Your task to perform on an android device: make emails show in primary in the gmail app Image 0: 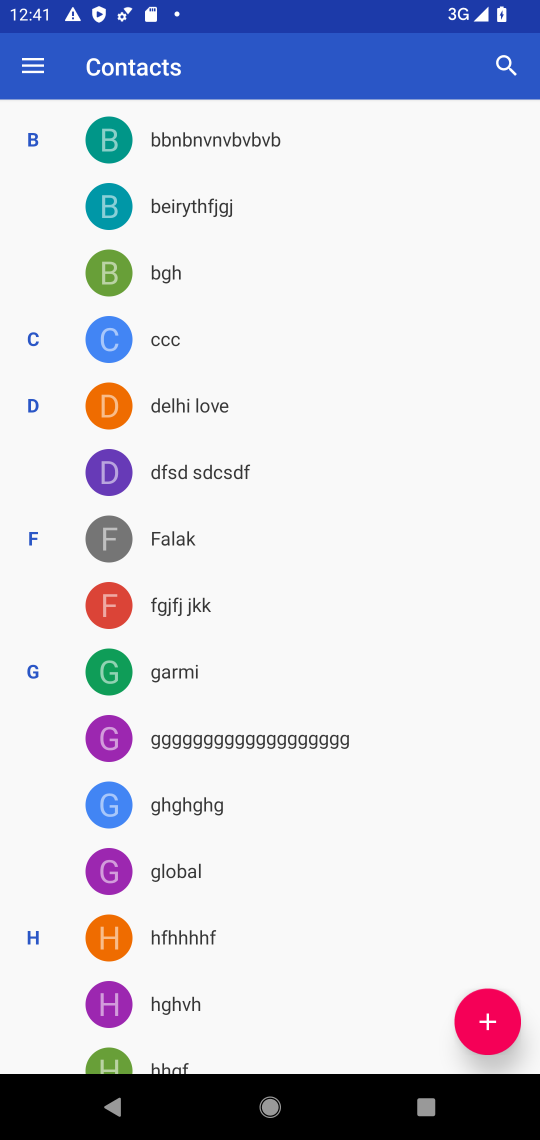
Step 0: press home button
Your task to perform on an android device: make emails show in primary in the gmail app Image 1: 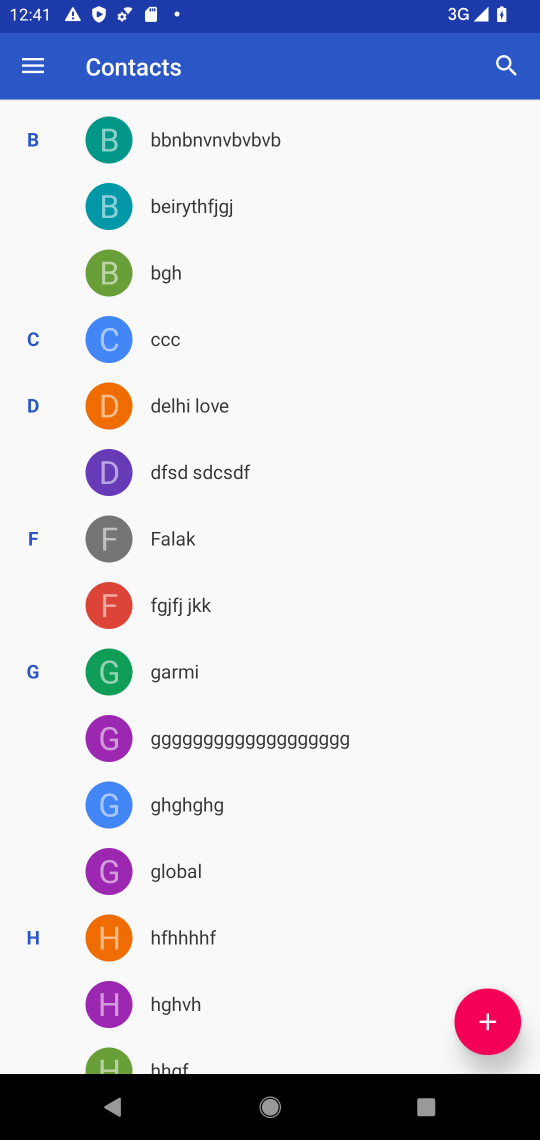
Step 1: drag from (212, 986) to (305, 224)
Your task to perform on an android device: make emails show in primary in the gmail app Image 2: 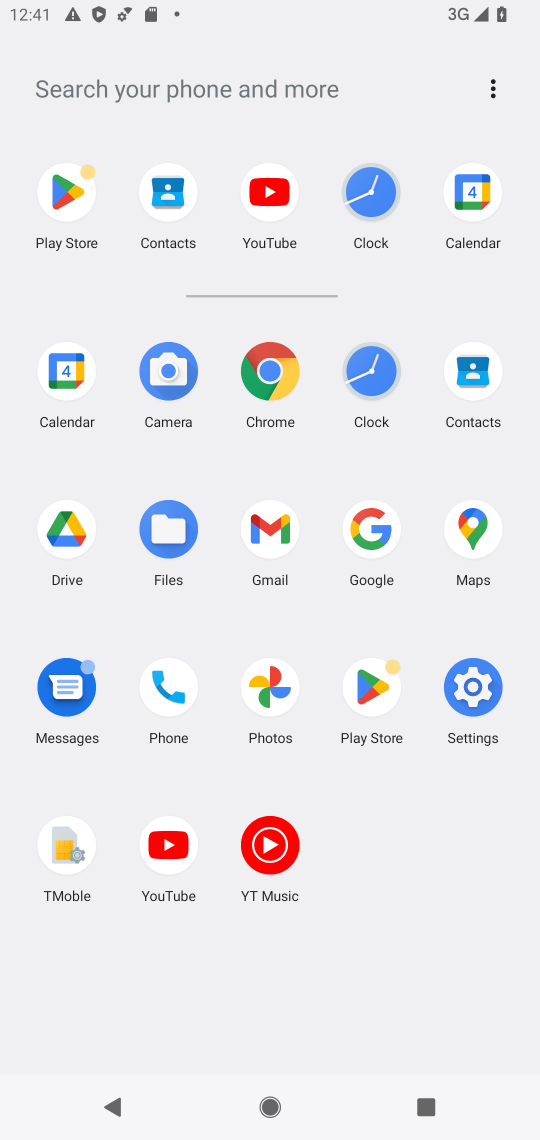
Step 2: click (273, 546)
Your task to perform on an android device: make emails show in primary in the gmail app Image 3: 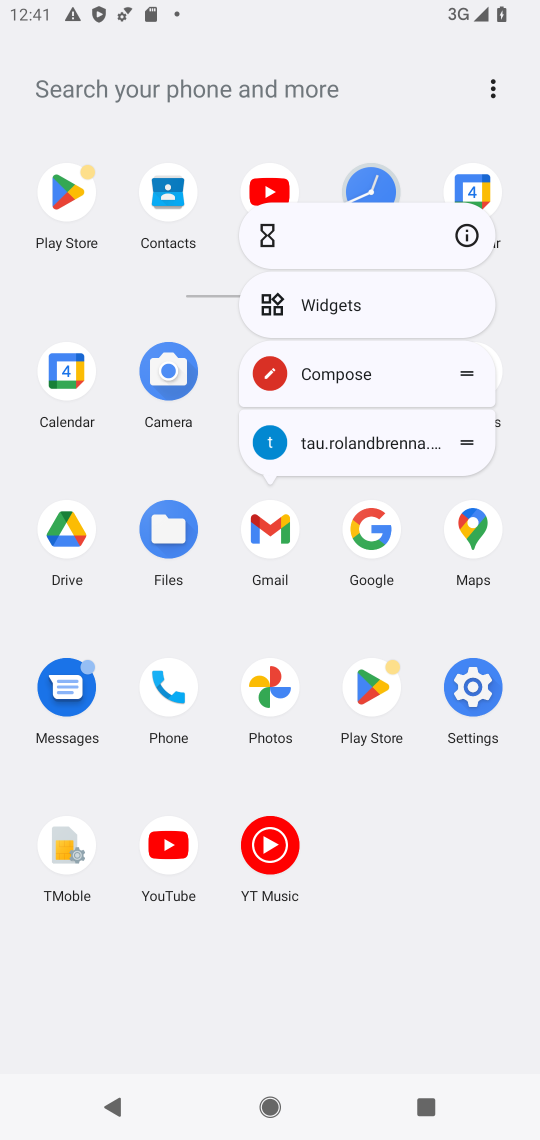
Step 3: click (485, 243)
Your task to perform on an android device: make emails show in primary in the gmail app Image 4: 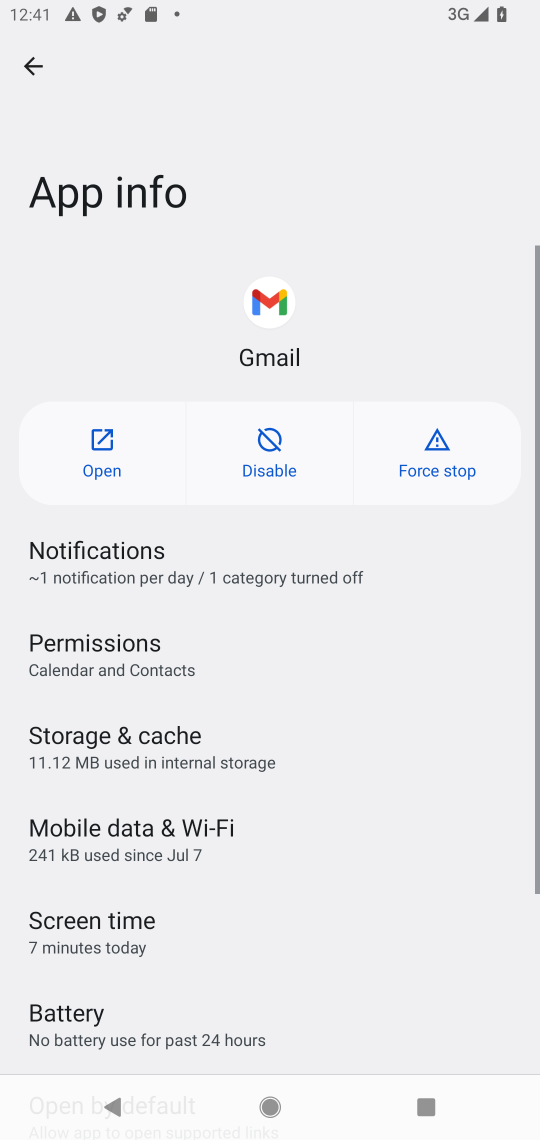
Step 4: click (123, 461)
Your task to perform on an android device: make emails show in primary in the gmail app Image 5: 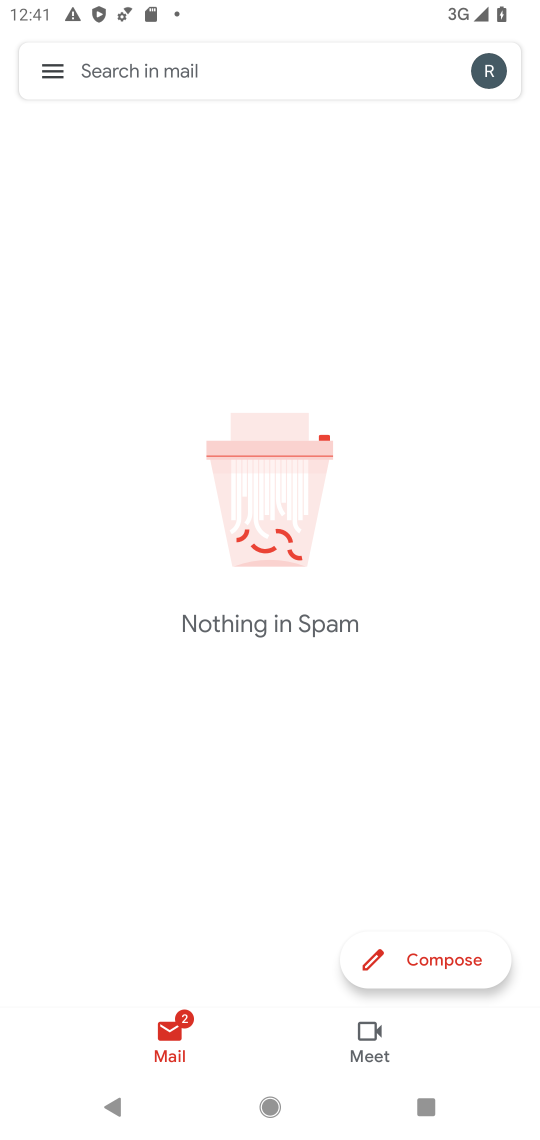
Step 5: click (61, 67)
Your task to perform on an android device: make emails show in primary in the gmail app Image 6: 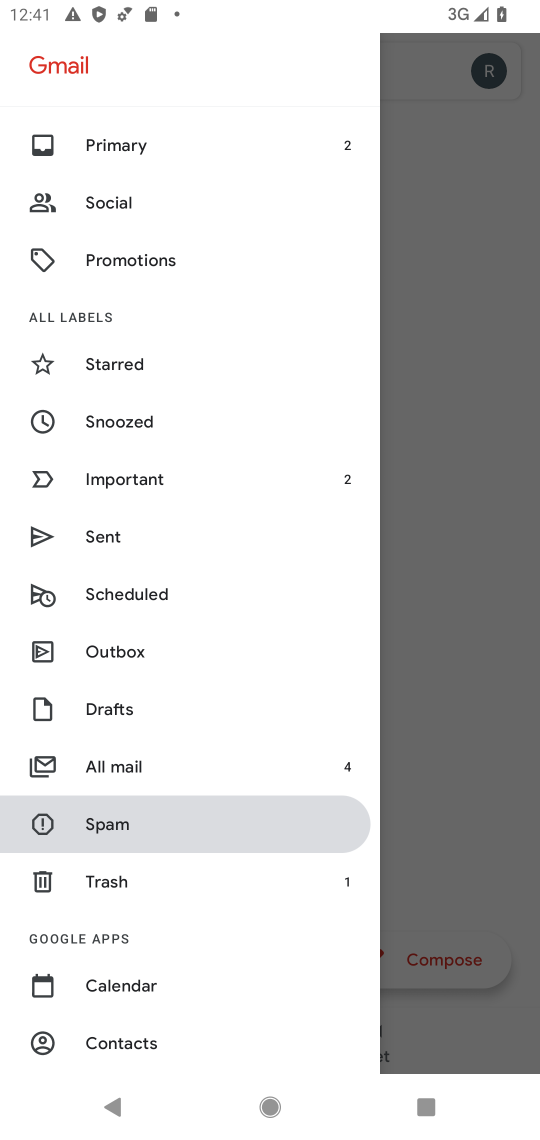
Step 6: click (134, 160)
Your task to perform on an android device: make emails show in primary in the gmail app Image 7: 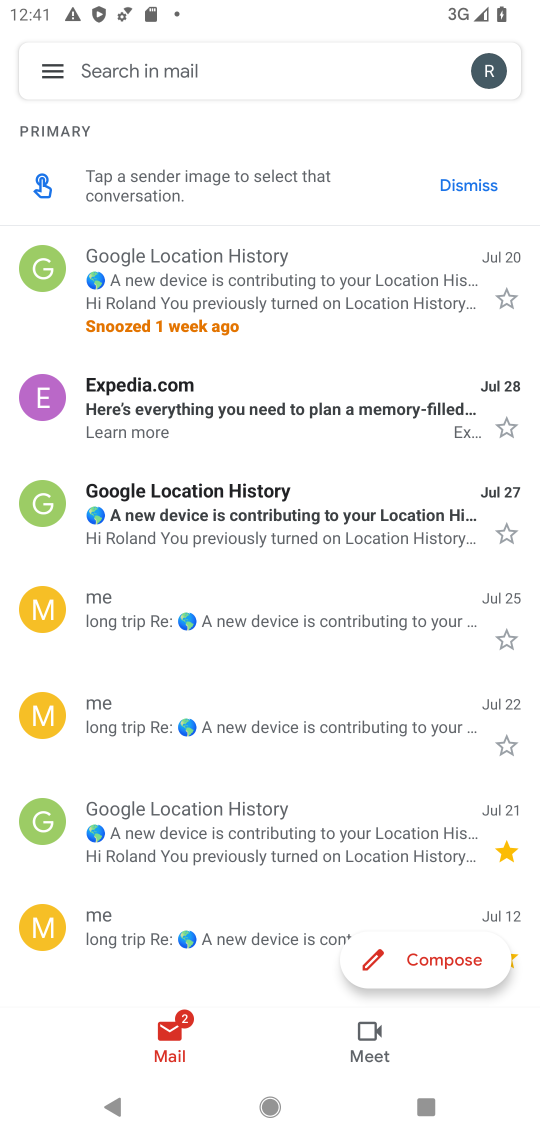
Step 7: click (63, 62)
Your task to perform on an android device: make emails show in primary in the gmail app Image 8: 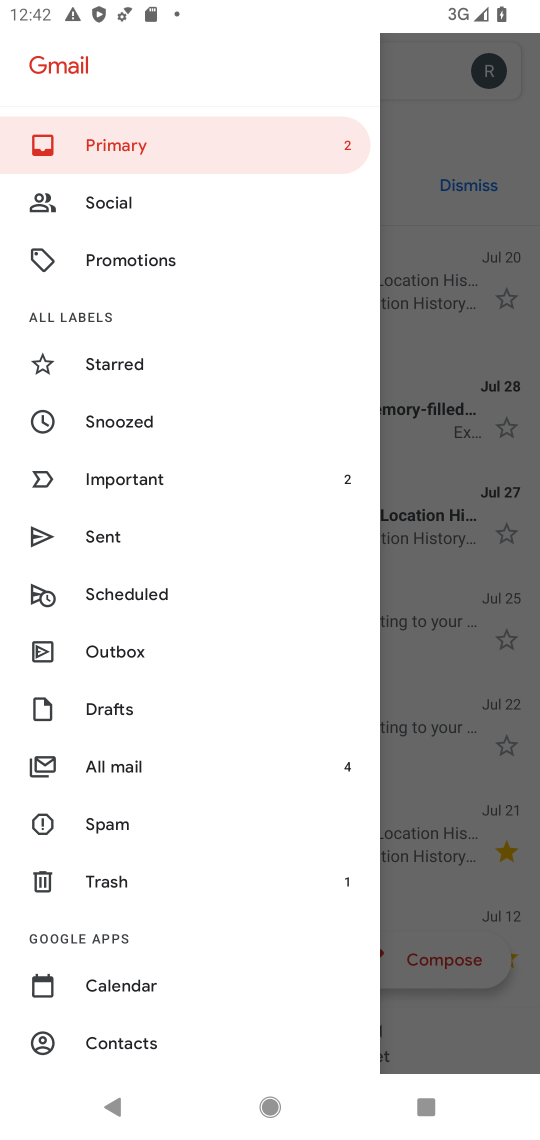
Step 8: drag from (240, 868) to (257, 155)
Your task to perform on an android device: make emails show in primary in the gmail app Image 9: 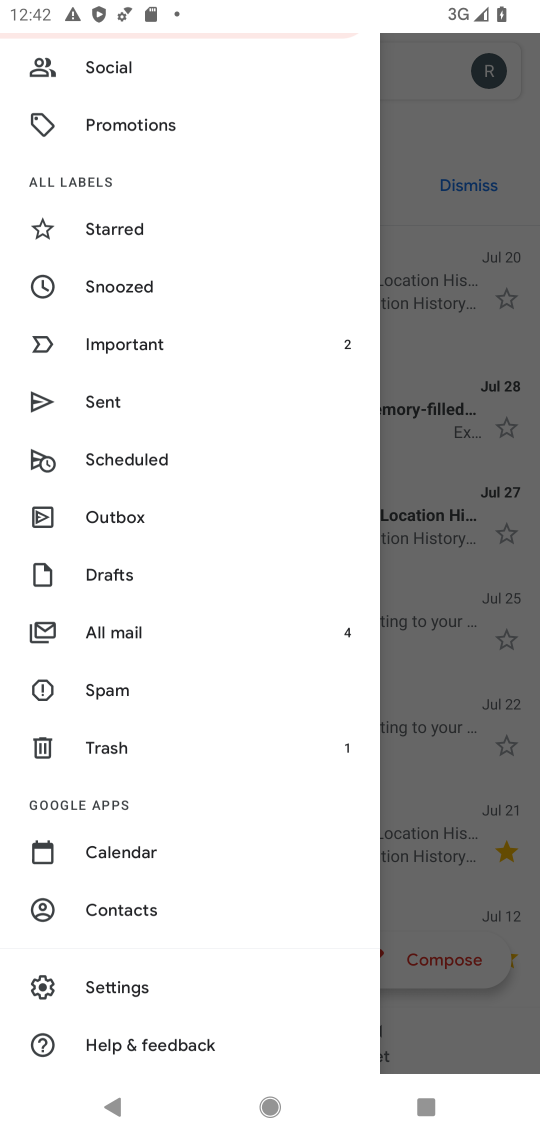
Step 9: drag from (151, 452) to (359, 1126)
Your task to perform on an android device: make emails show in primary in the gmail app Image 10: 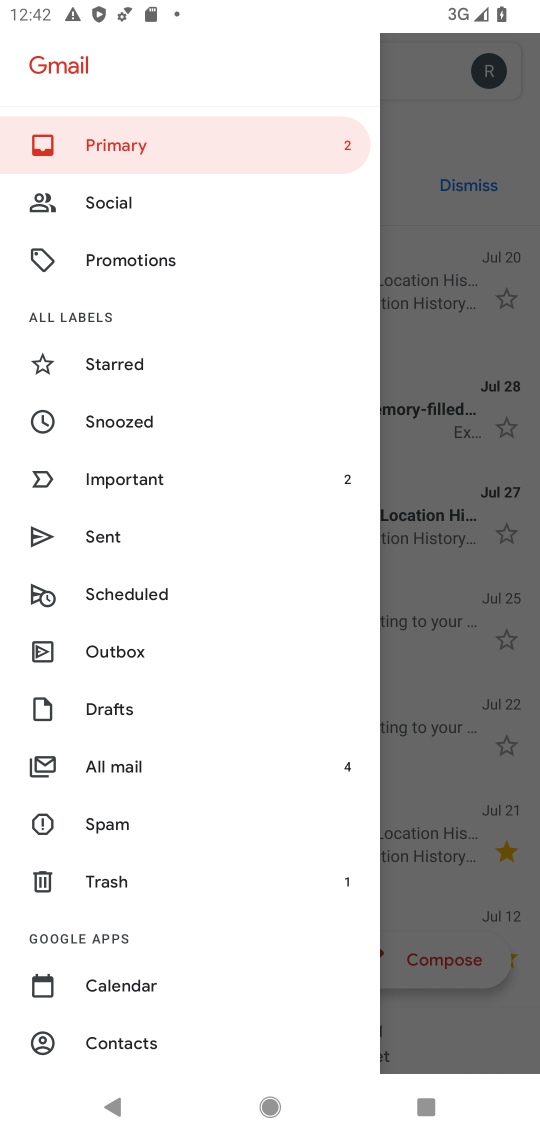
Step 10: drag from (205, 318) to (288, 1099)
Your task to perform on an android device: make emails show in primary in the gmail app Image 11: 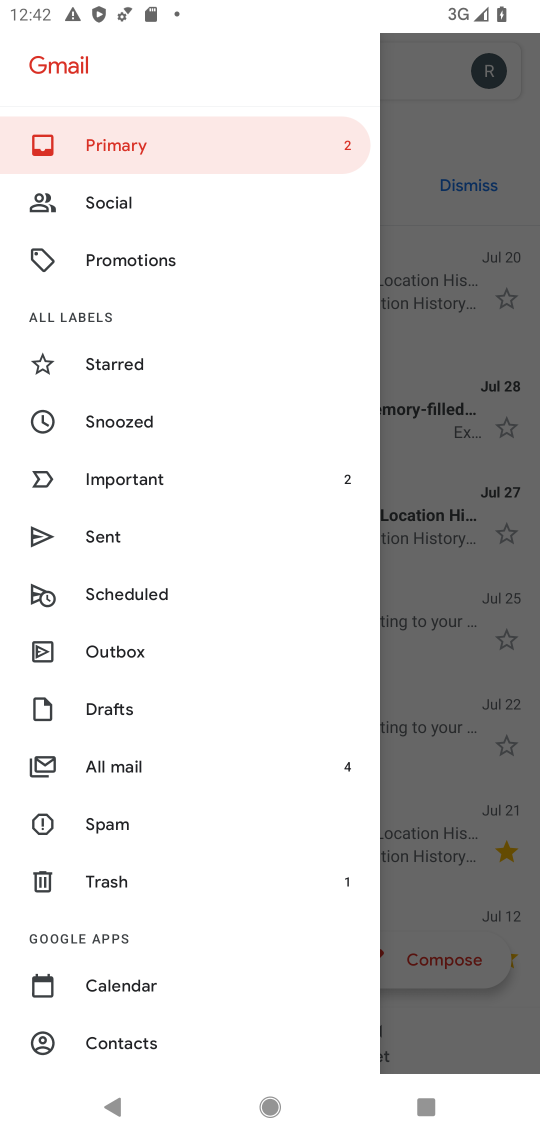
Step 11: click (178, 159)
Your task to perform on an android device: make emails show in primary in the gmail app Image 12: 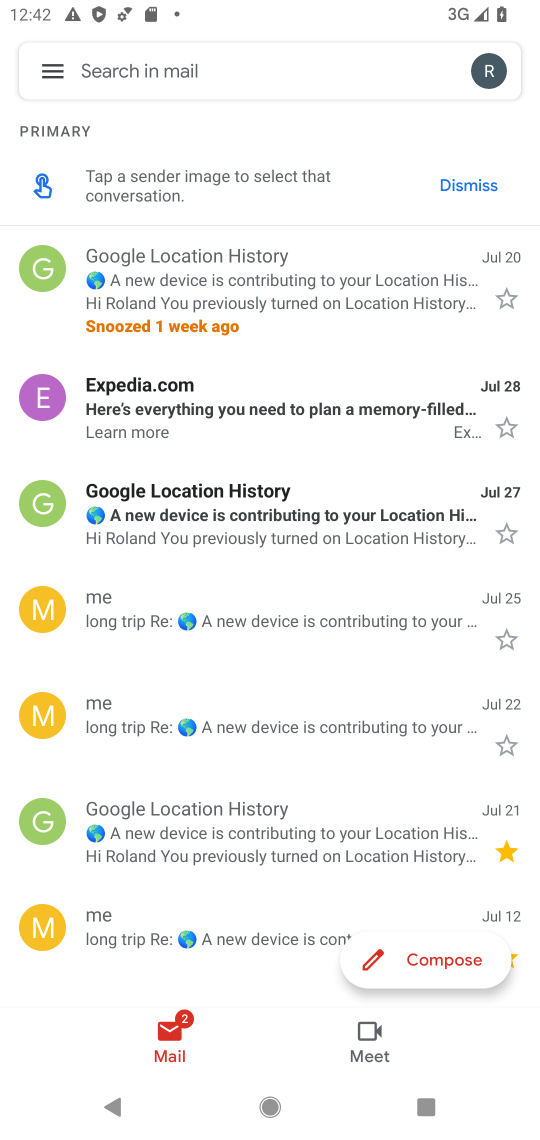
Step 12: task complete